Your task to perform on an android device: Open Google Maps Image 0: 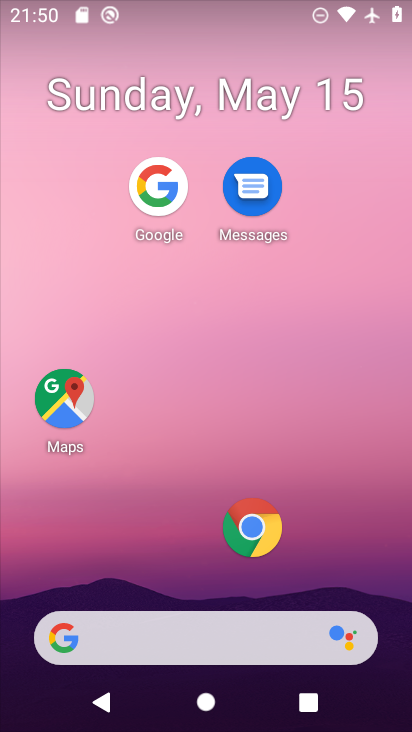
Step 0: click (70, 417)
Your task to perform on an android device: Open Google Maps Image 1: 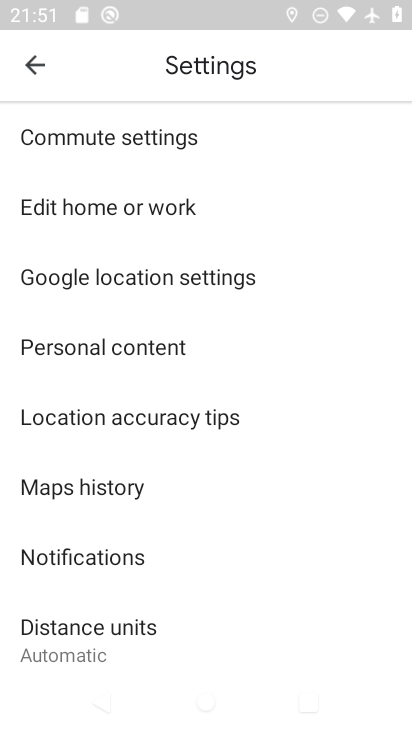
Step 1: click (38, 62)
Your task to perform on an android device: Open Google Maps Image 2: 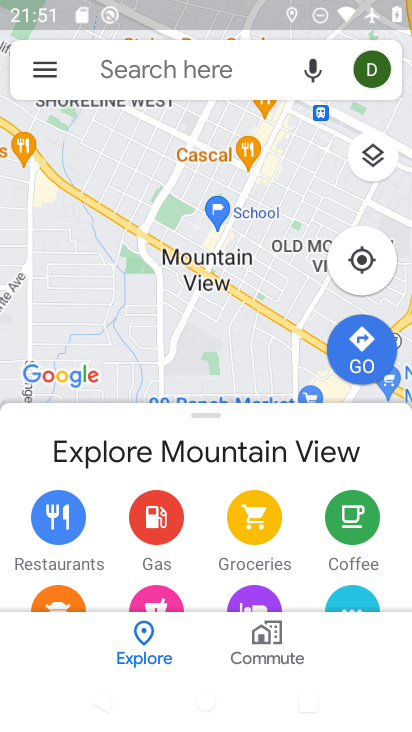
Step 2: task complete